Your task to perform on an android device: turn on airplane mode Image 0: 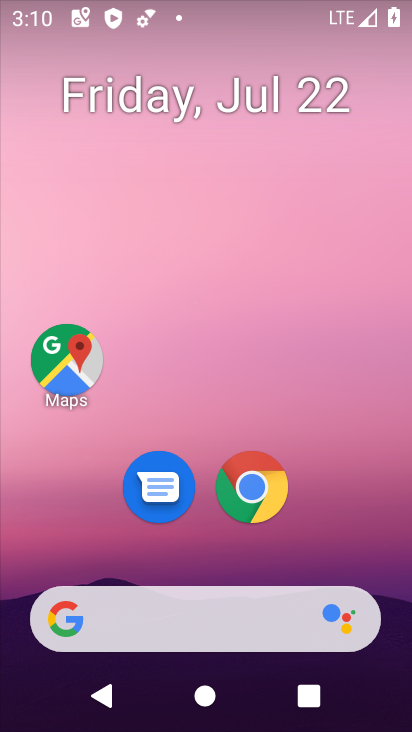
Step 0: drag from (340, 39) to (248, 621)
Your task to perform on an android device: turn on airplane mode Image 1: 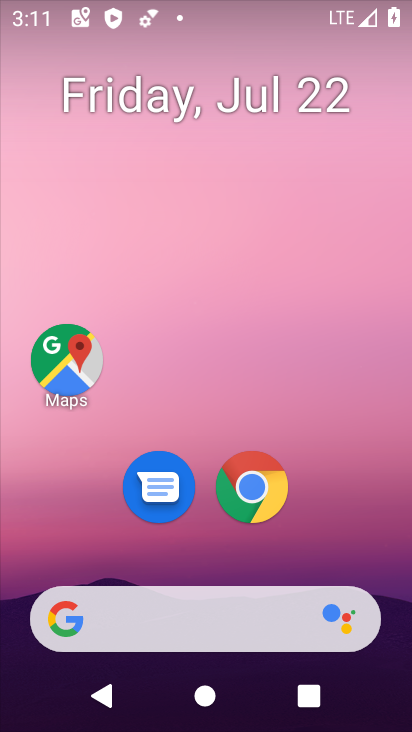
Step 1: drag from (339, 5) to (226, 674)
Your task to perform on an android device: turn on airplane mode Image 2: 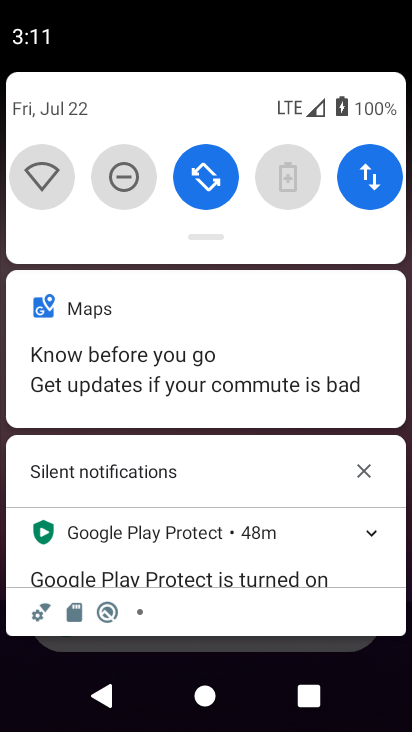
Step 2: drag from (193, 312) to (197, 711)
Your task to perform on an android device: turn on airplane mode Image 3: 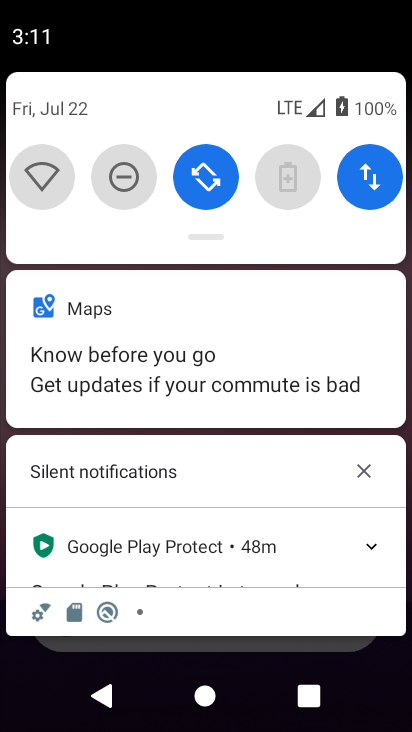
Step 3: drag from (356, 266) to (1, 294)
Your task to perform on an android device: turn on airplane mode Image 4: 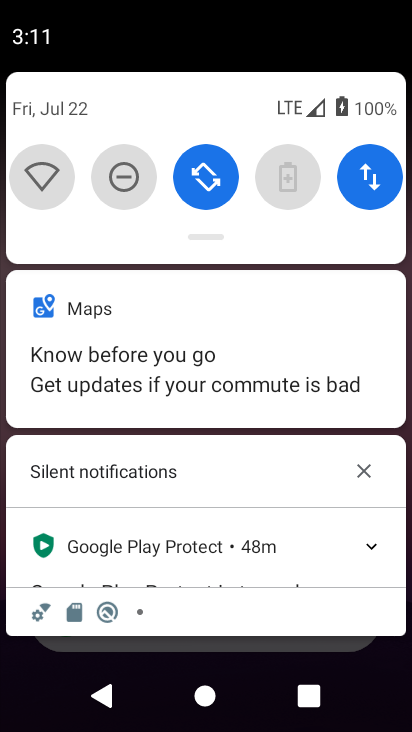
Step 4: drag from (215, 238) to (179, 705)
Your task to perform on an android device: turn on airplane mode Image 5: 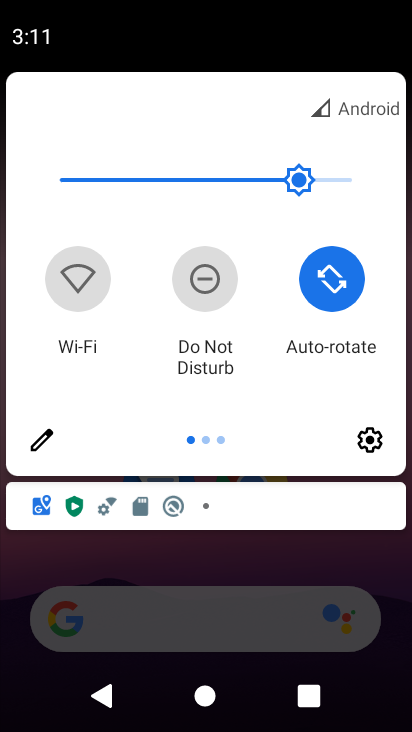
Step 5: drag from (336, 273) to (12, 309)
Your task to perform on an android device: turn on airplane mode Image 6: 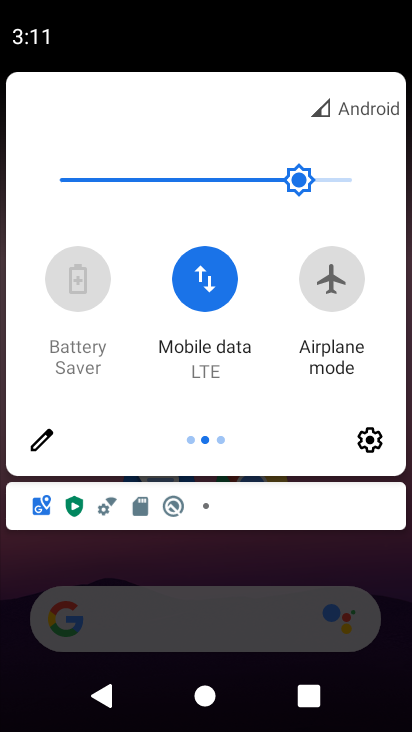
Step 6: click (313, 286)
Your task to perform on an android device: turn on airplane mode Image 7: 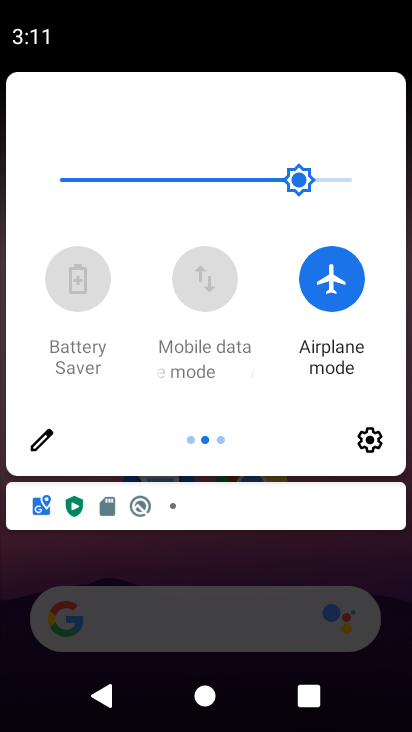
Step 7: task complete